Your task to perform on an android device: turn off notifications in google photos Image 0: 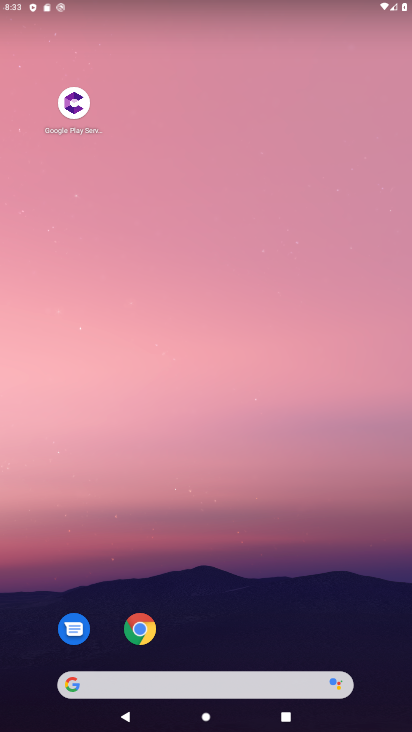
Step 0: drag from (284, 634) to (297, 6)
Your task to perform on an android device: turn off notifications in google photos Image 1: 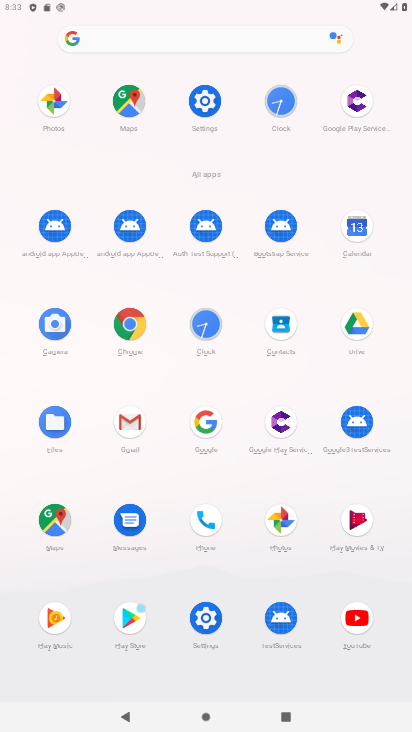
Step 1: click (275, 510)
Your task to perform on an android device: turn off notifications in google photos Image 2: 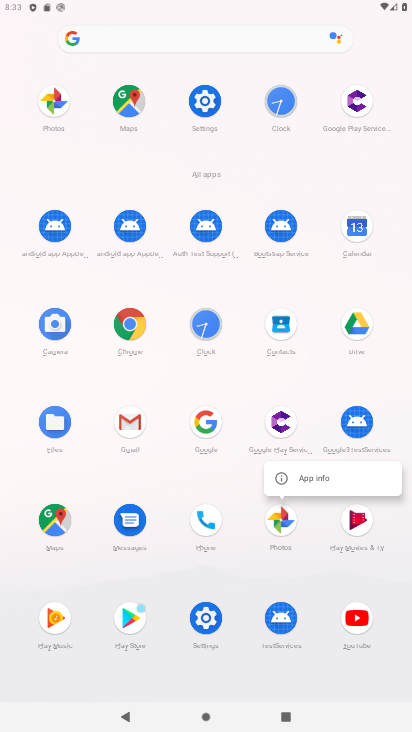
Step 2: click (283, 478)
Your task to perform on an android device: turn off notifications in google photos Image 3: 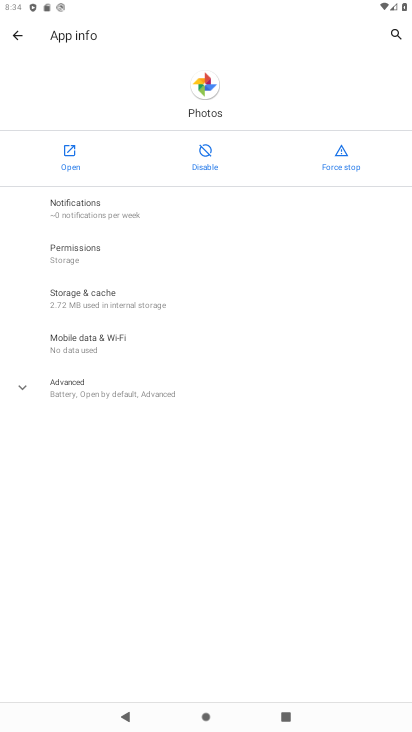
Step 3: click (120, 206)
Your task to perform on an android device: turn off notifications in google photos Image 4: 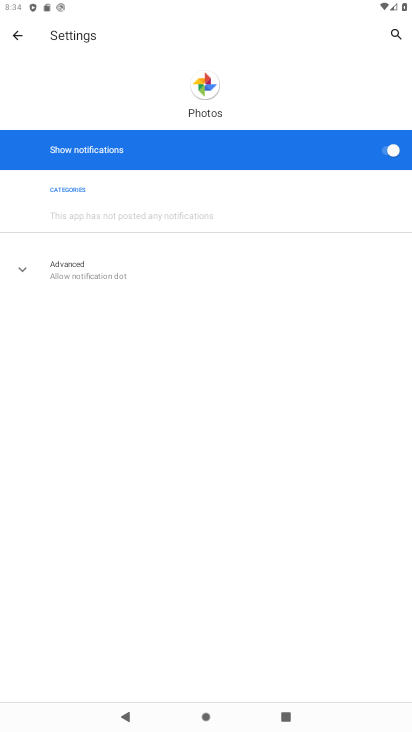
Step 4: click (342, 159)
Your task to perform on an android device: turn off notifications in google photos Image 5: 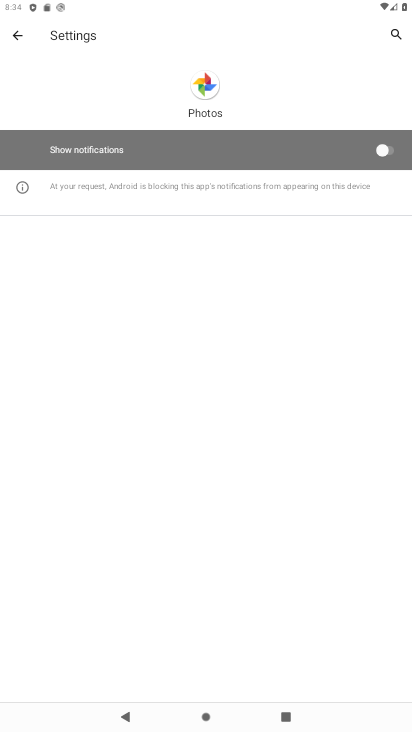
Step 5: task complete